Your task to perform on an android device: change the clock display to show seconds Image 0: 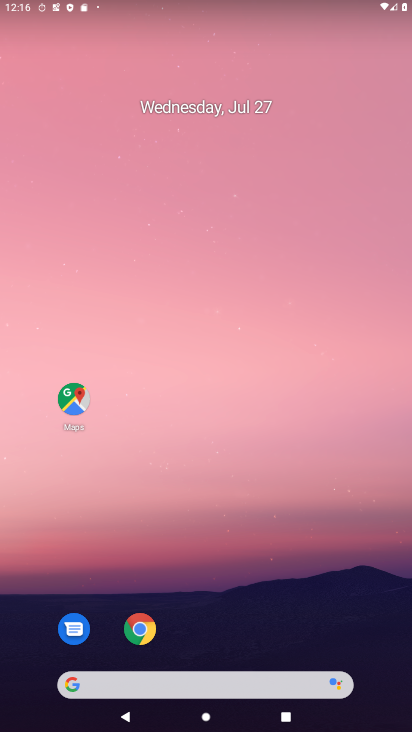
Step 0: drag from (283, 480) to (61, 44)
Your task to perform on an android device: change the clock display to show seconds Image 1: 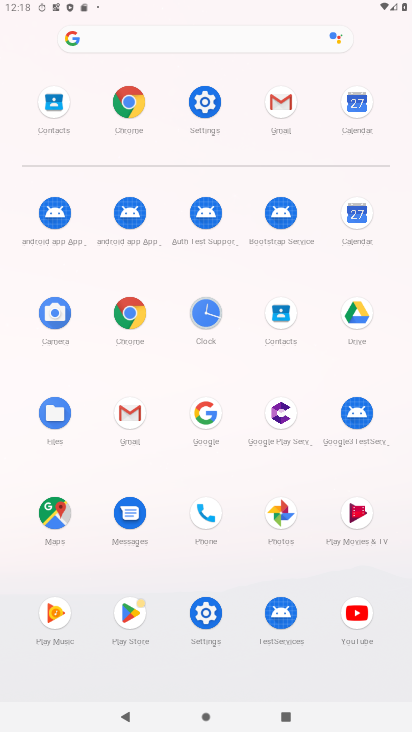
Step 1: click (200, 327)
Your task to perform on an android device: change the clock display to show seconds Image 2: 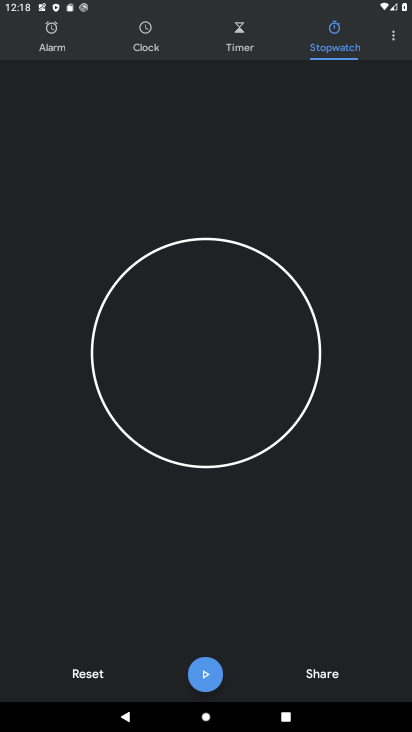
Step 2: click (388, 26)
Your task to perform on an android device: change the clock display to show seconds Image 3: 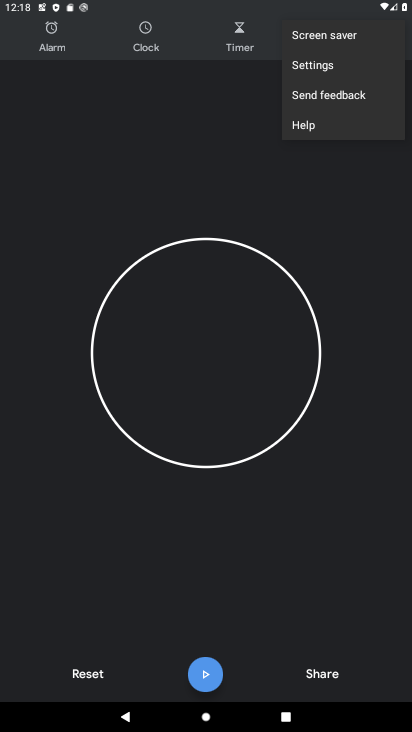
Step 3: click (326, 68)
Your task to perform on an android device: change the clock display to show seconds Image 4: 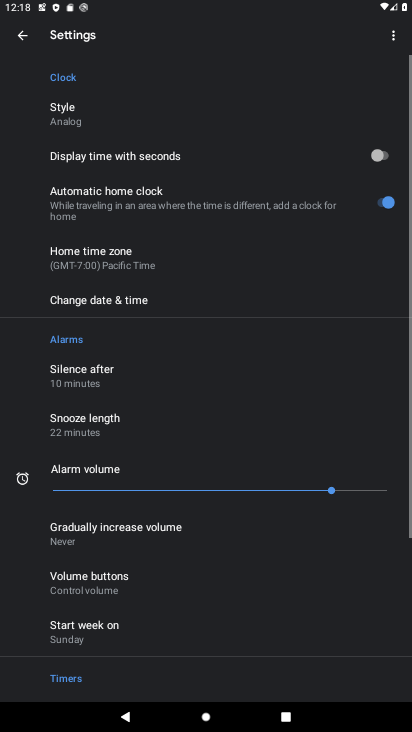
Step 4: click (135, 152)
Your task to perform on an android device: change the clock display to show seconds Image 5: 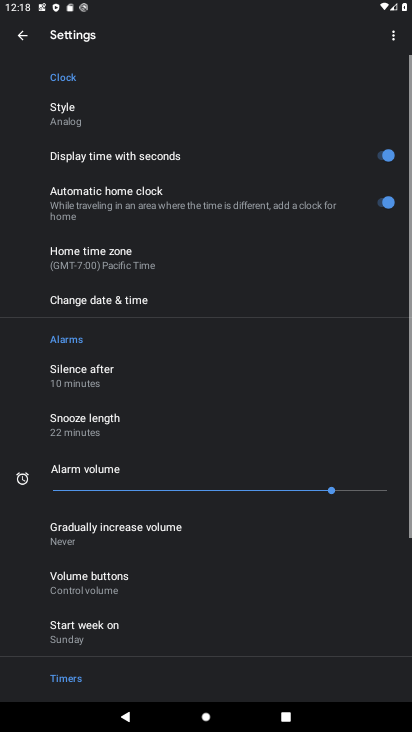
Step 5: task complete